Your task to perform on an android device: star an email in the gmail app Image 0: 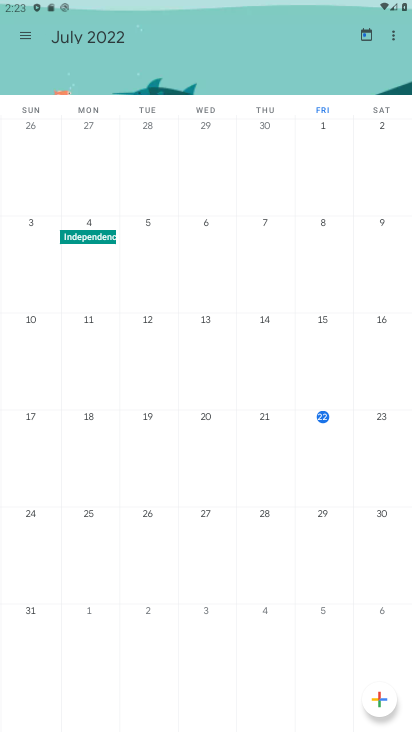
Step 0: task complete